Your task to perform on an android device: set an alarm Image 0: 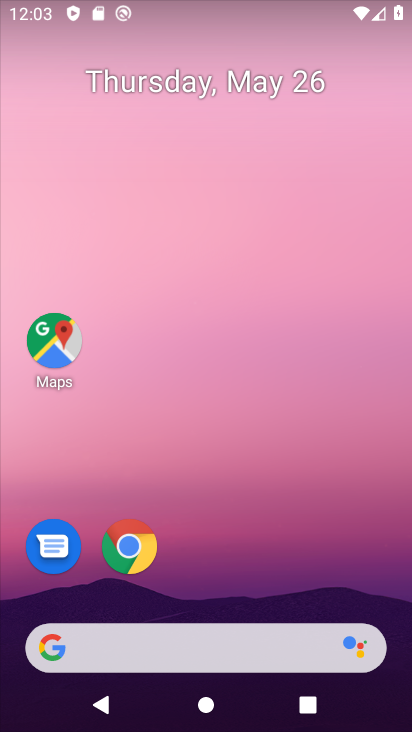
Step 0: drag from (158, 644) to (217, 81)
Your task to perform on an android device: set an alarm Image 1: 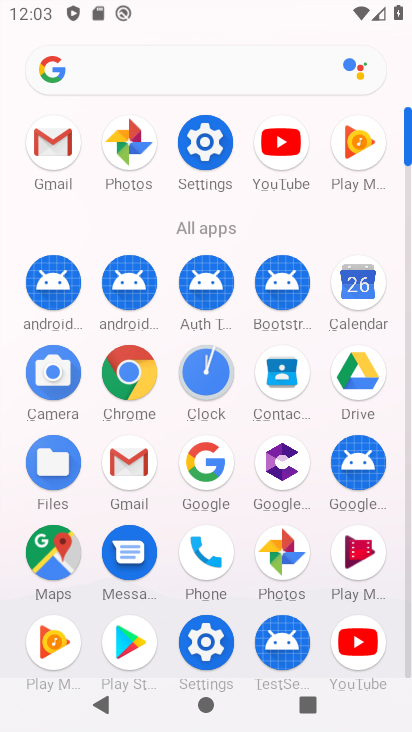
Step 1: click (212, 377)
Your task to perform on an android device: set an alarm Image 2: 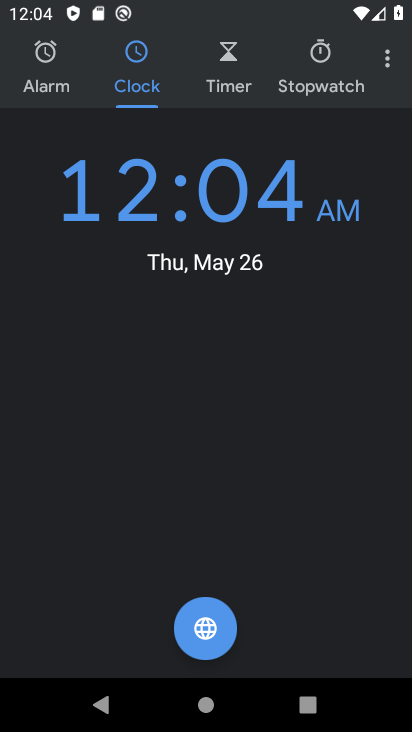
Step 2: click (25, 69)
Your task to perform on an android device: set an alarm Image 3: 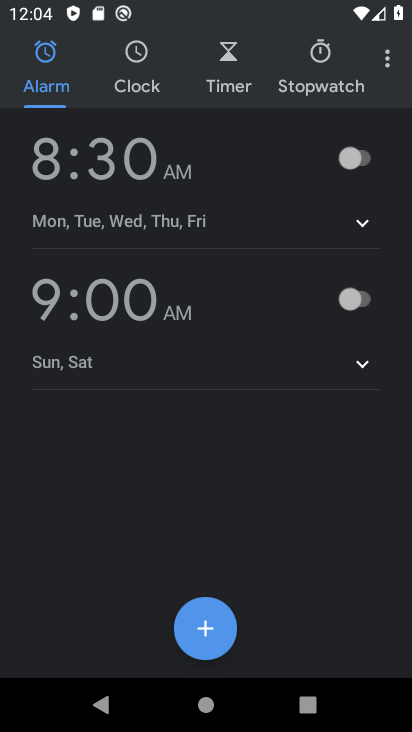
Step 3: click (212, 628)
Your task to perform on an android device: set an alarm Image 4: 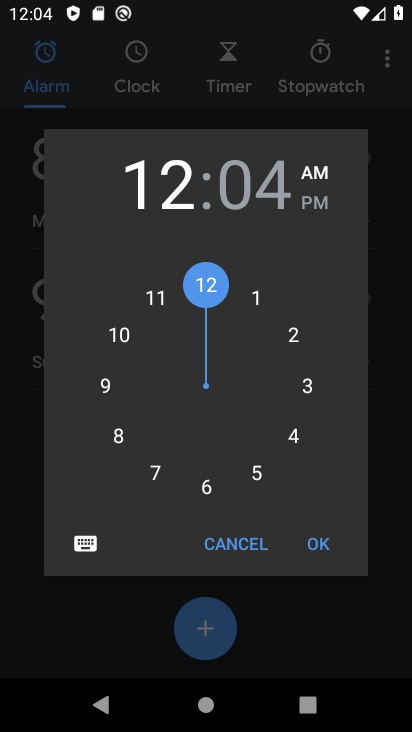
Step 4: click (315, 540)
Your task to perform on an android device: set an alarm Image 5: 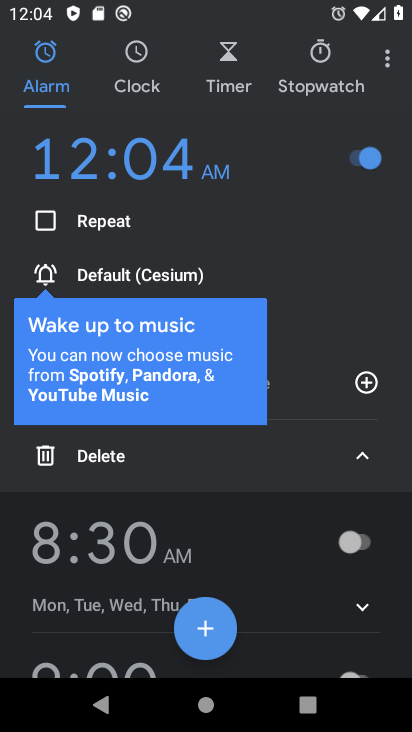
Step 5: task complete